Your task to perform on an android device: Go to display settings Image 0: 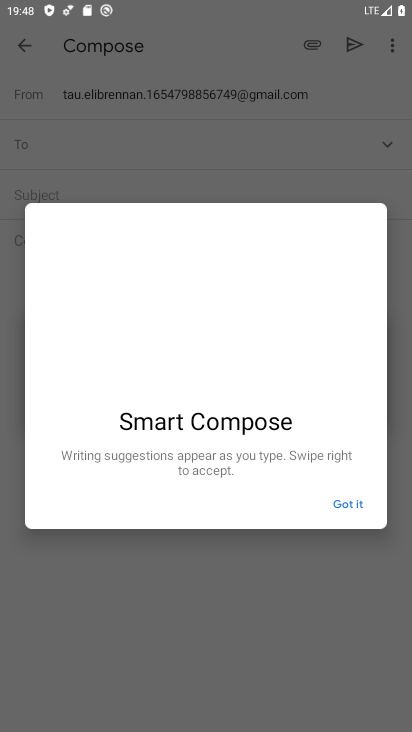
Step 0: press home button
Your task to perform on an android device: Go to display settings Image 1: 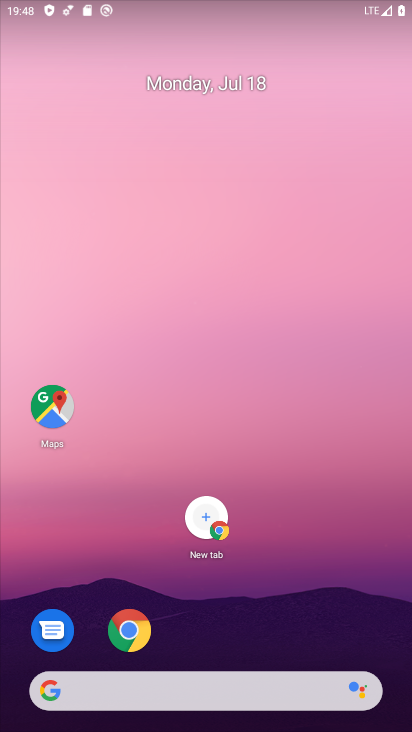
Step 1: drag from (183, 681) to (300, 161)
Your task to perform on an android device: Go to display settings Image 2: 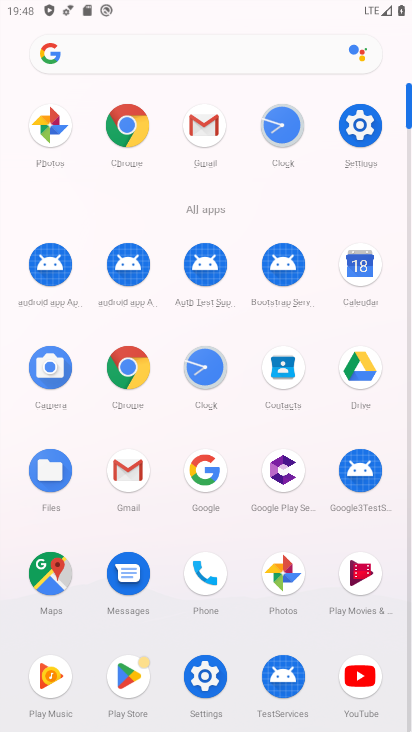
Step 2: click (349, 122)
Your task to perform on an android device: Go to display settings Image 3: 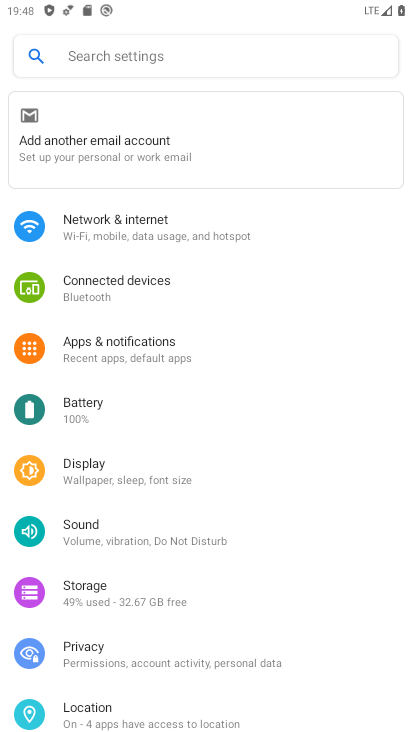
Step 3: click (85, 471)
Your task to perform on an android device: Go to display settings Image 4: 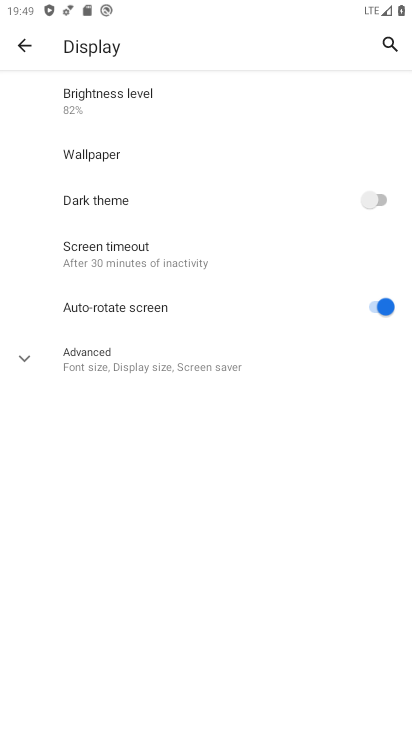
Step 4: click (79, 362)
Your task to perform on an android device: Go to display settings Image 5: 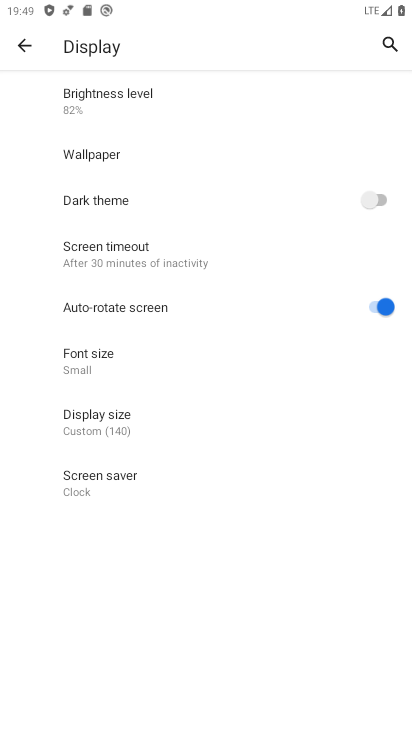
Step 5: task complete